Your task to perform on an android device: Open calendar and show me the first week of next month Image 0: 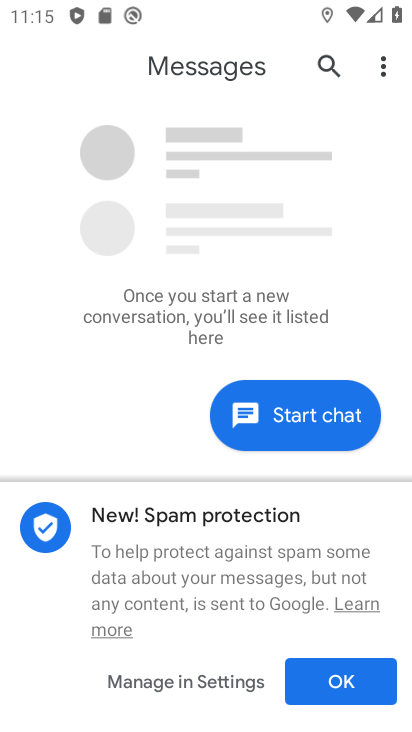
Step 0: press back button
Your task to perform on an android device: Open calendar and show me the first week of next month Image 1: 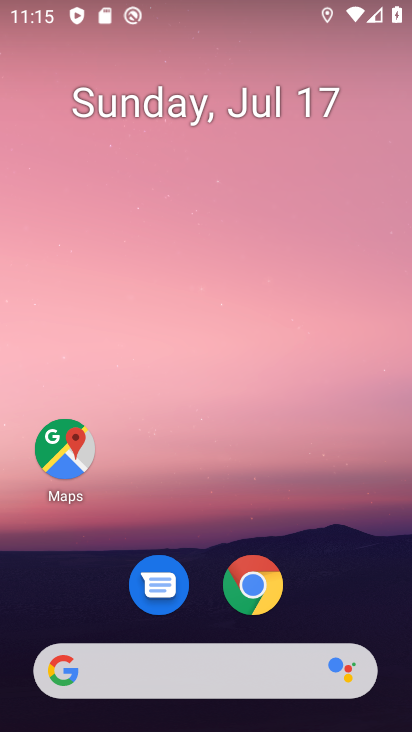
Step 1: drag from (320, 588) to (301, 136)
Your task to perform on an android device: Open calendar and show me the first week of next month Image 2: 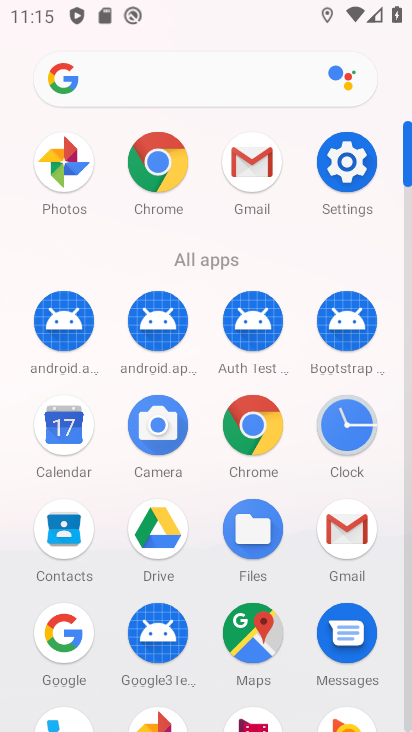
Step 2: click (50, 413)
Your task to perform on an android device: Open calendar and show me the first week of next month Image 3: 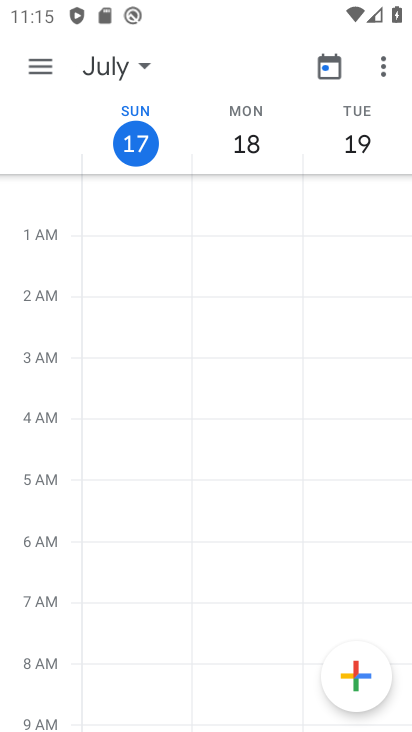
Step 3: click (37, 64)
Your task to perform on an android device: Open calendar and show me the first week of next month Image 4: 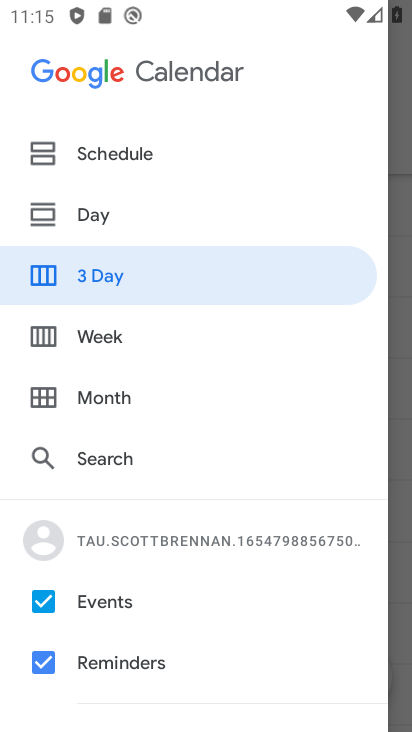
Step 4: click (93, 335)
Your task to perform on an android device: Open calendar and show me the first week of next month Image 5: 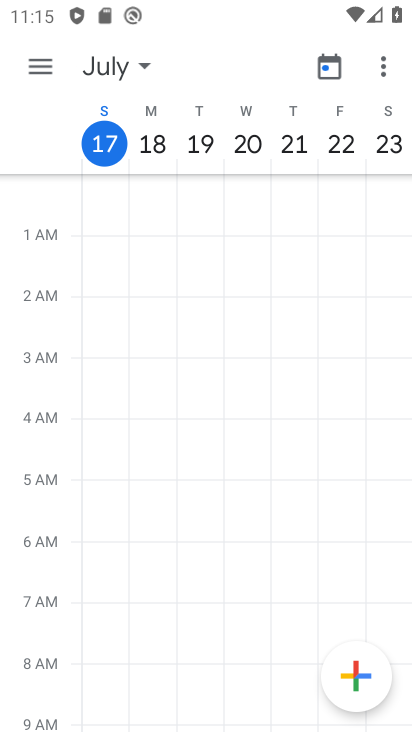
Step 5: task complete